Your task to perform on an android device: Search for "panasonic triple a" on target, select the first entry, and add it to the cart. Image 0: 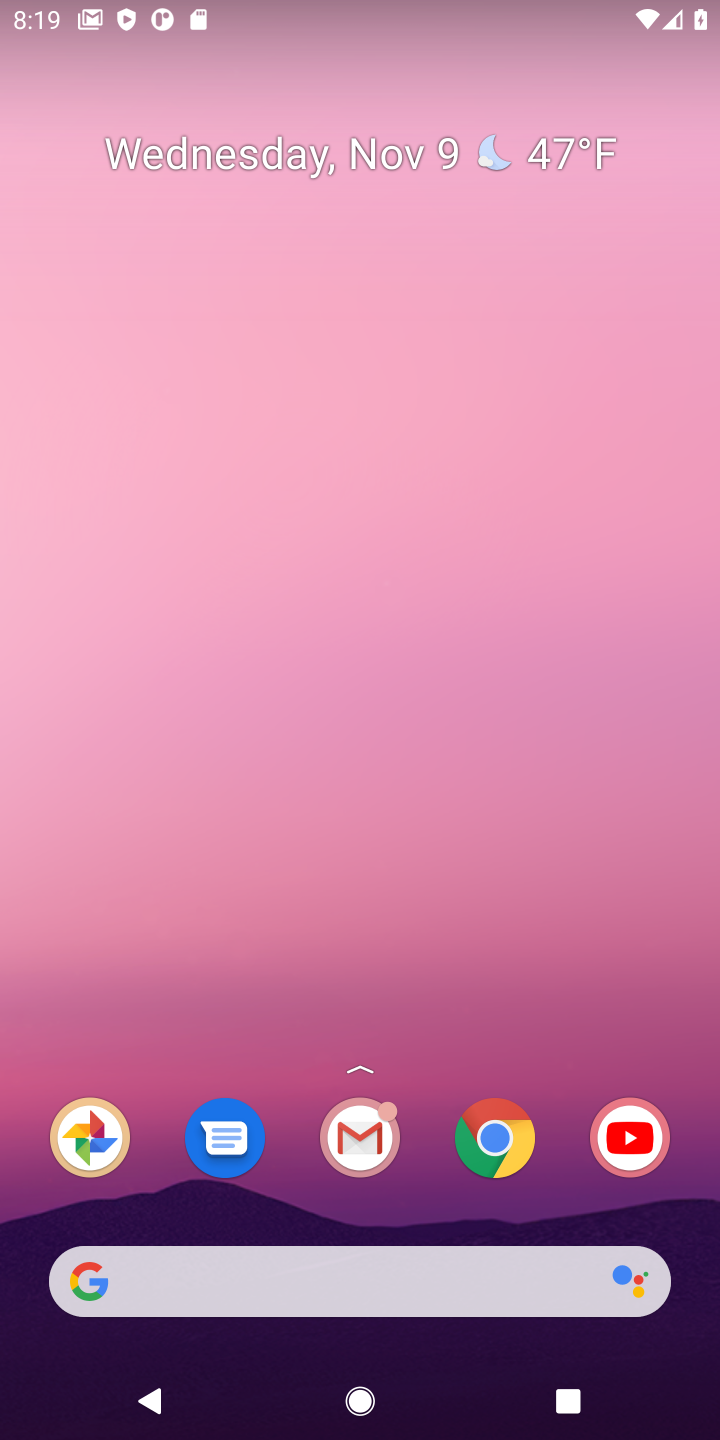
Step 0: drag from (443, 1208) to (362, 48)
Your task to perform on an android device: Search for "panasonic triple a" on target, select the first entry, and add it to the cart. Image 1: 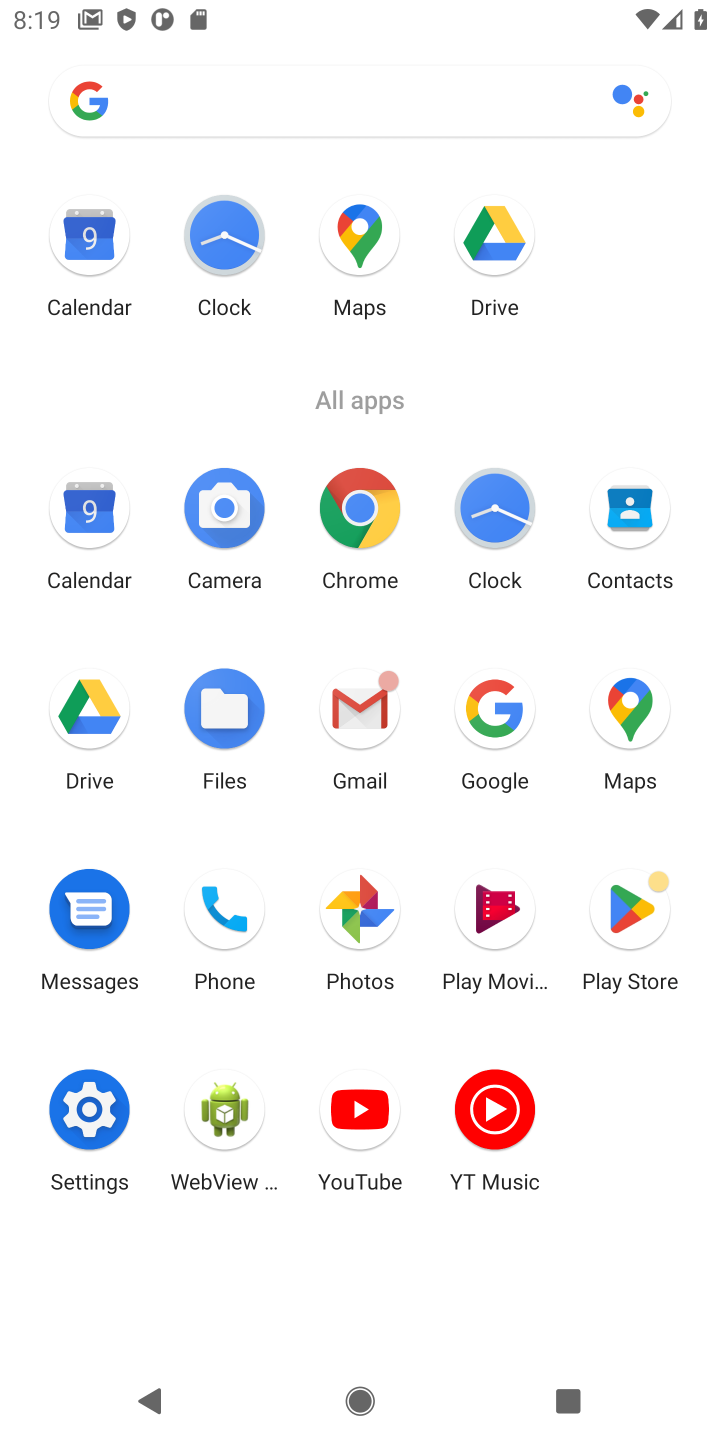
Step 1: click (362, 502)
Your task to perform on an android device: Search for "panasonic triple a" on target, select the first entry, and add it to the cart. Image 2: 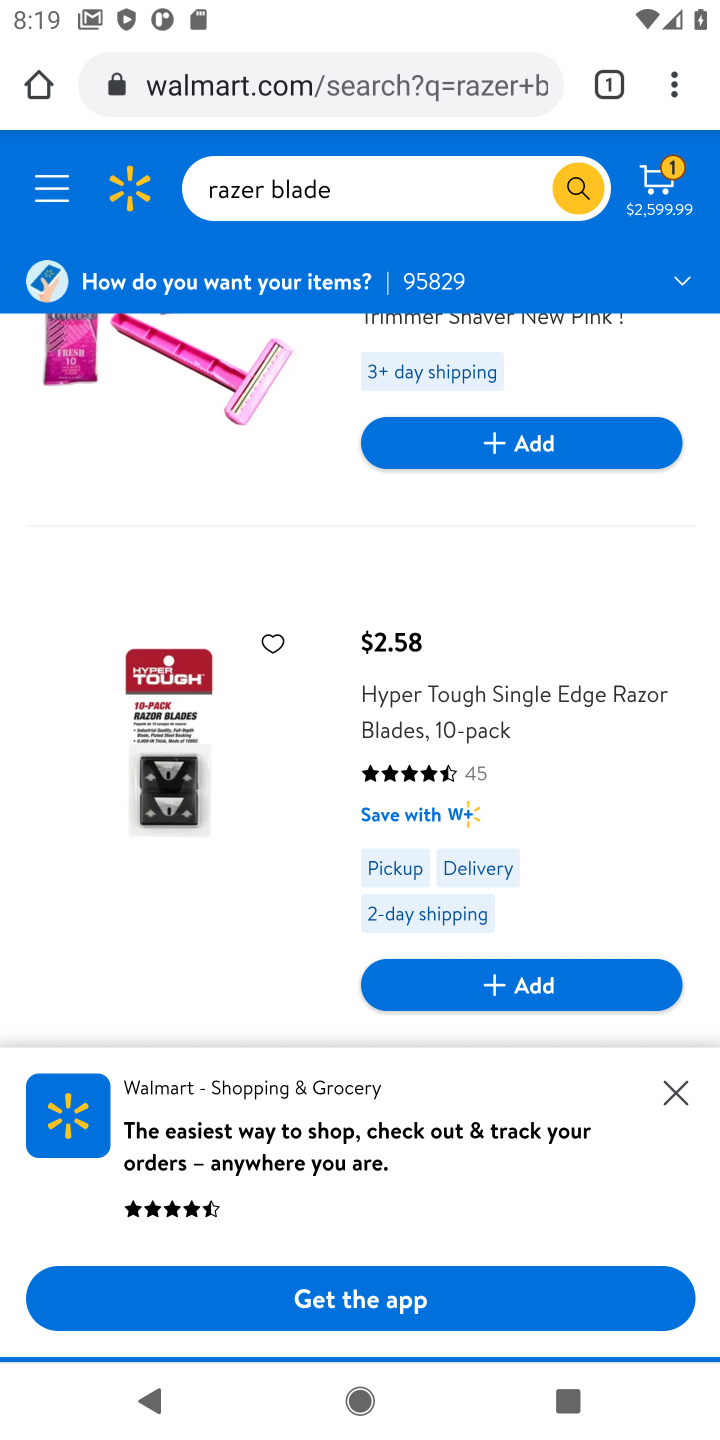
Step 2: click (399, 80)
Your task to perform on an android device: Search for "panasonic triple a" on target, select the first entry, and add it to the cart. Image 3: 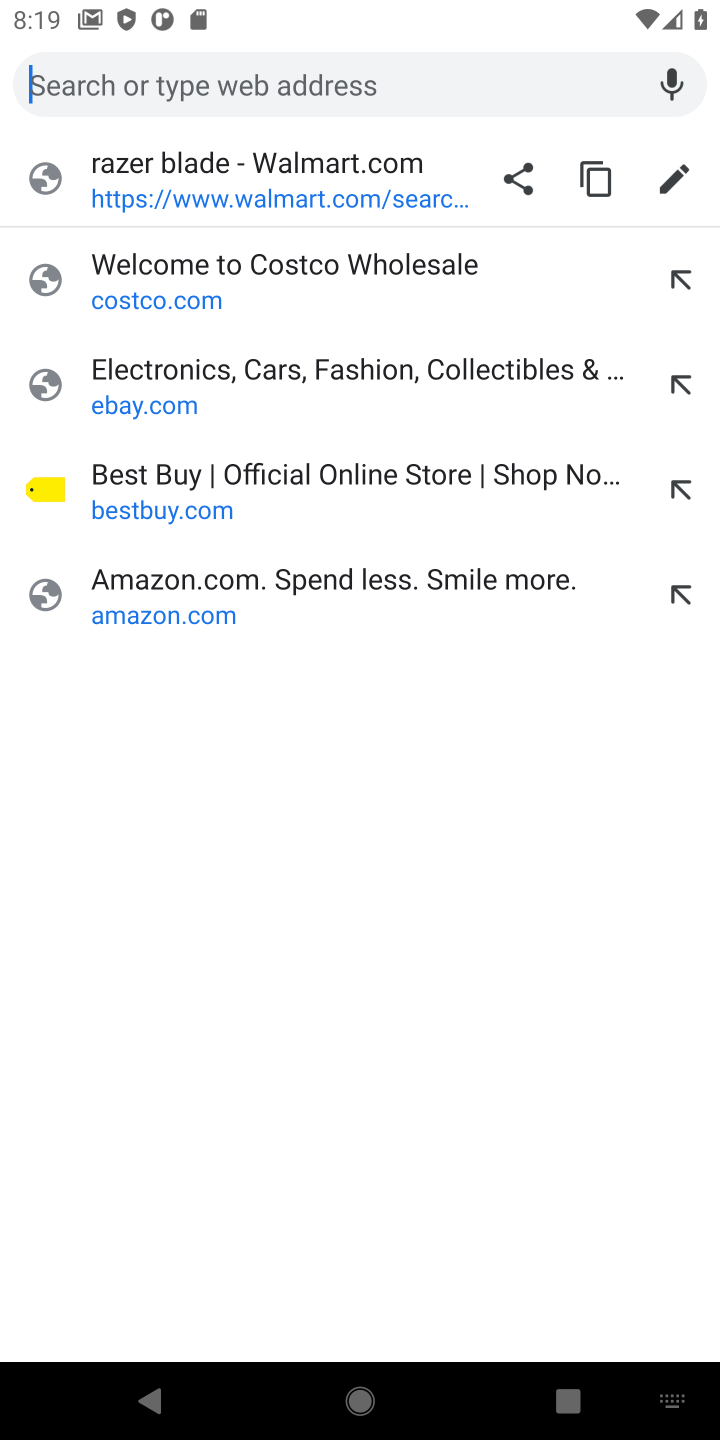
Step 3: type "target.com"
Your task to perform on an android device: Search for "panasonic triple a" on target, select the first entry, and add it to the cart. Image 4: 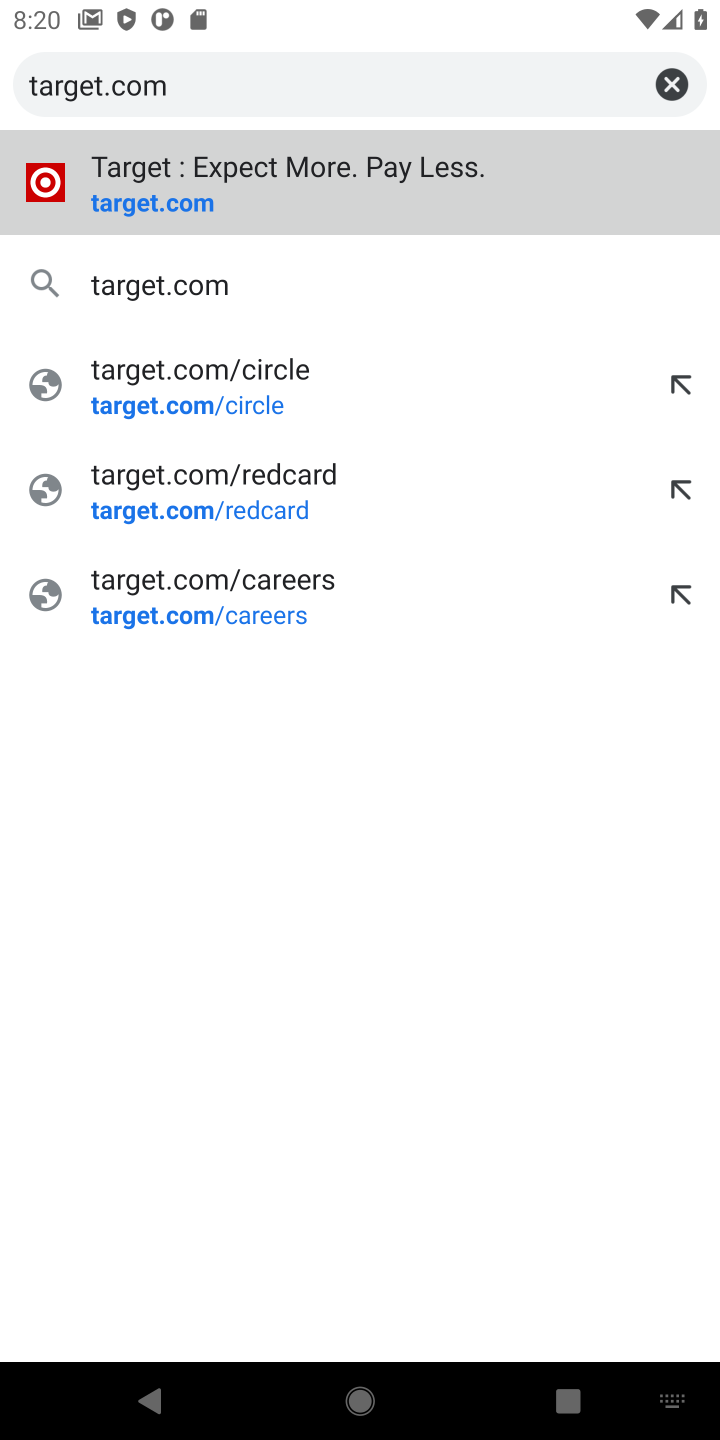
Step 4: press enter
Your task to perform on an android device: Search for "panasonic triple a" on target, select the first entry, and add it to the cart. Image 5: 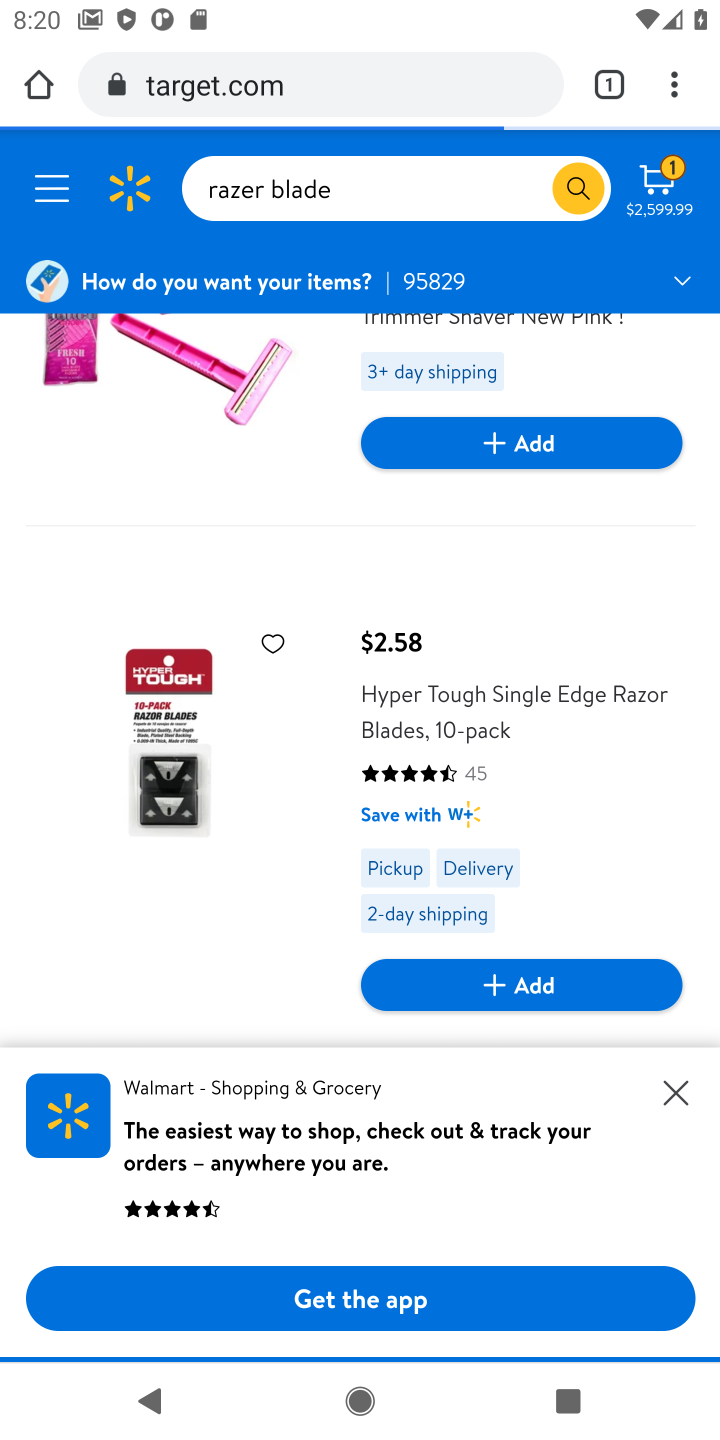
Step 5: press enter
Your task to perform on an android device: Search for "panasonic triple a" on target, select the first entry, and add it to the cart. Image 6: 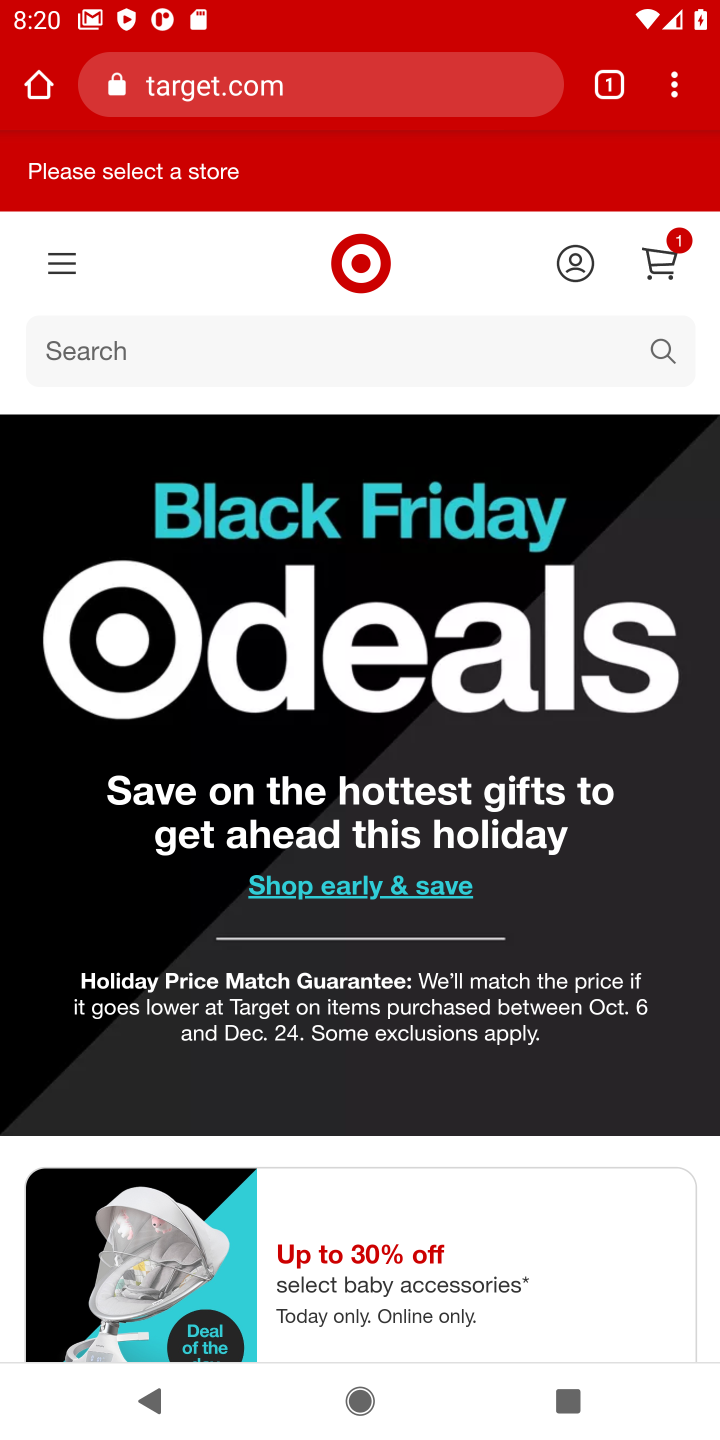
Step 6: click (338, 351)
Your task to perform on an android device: Search for "panasonic triple a" on target, select the first entry, and add it to the cart. Image 7: 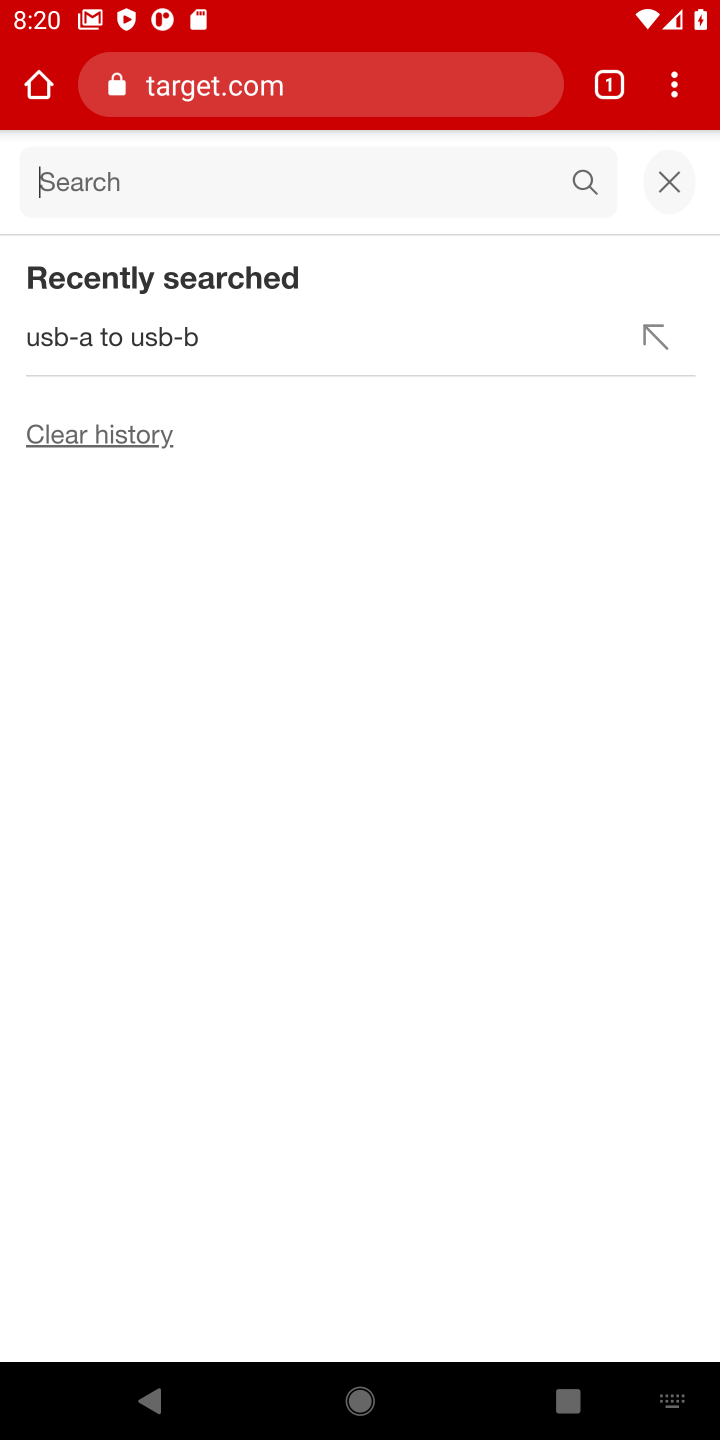
Step 7: type "panasonic triple a"
Your task to perform on an android device: Search for "panasonic triple a" on target, select the first entry, and add it to the cart. Image 8: 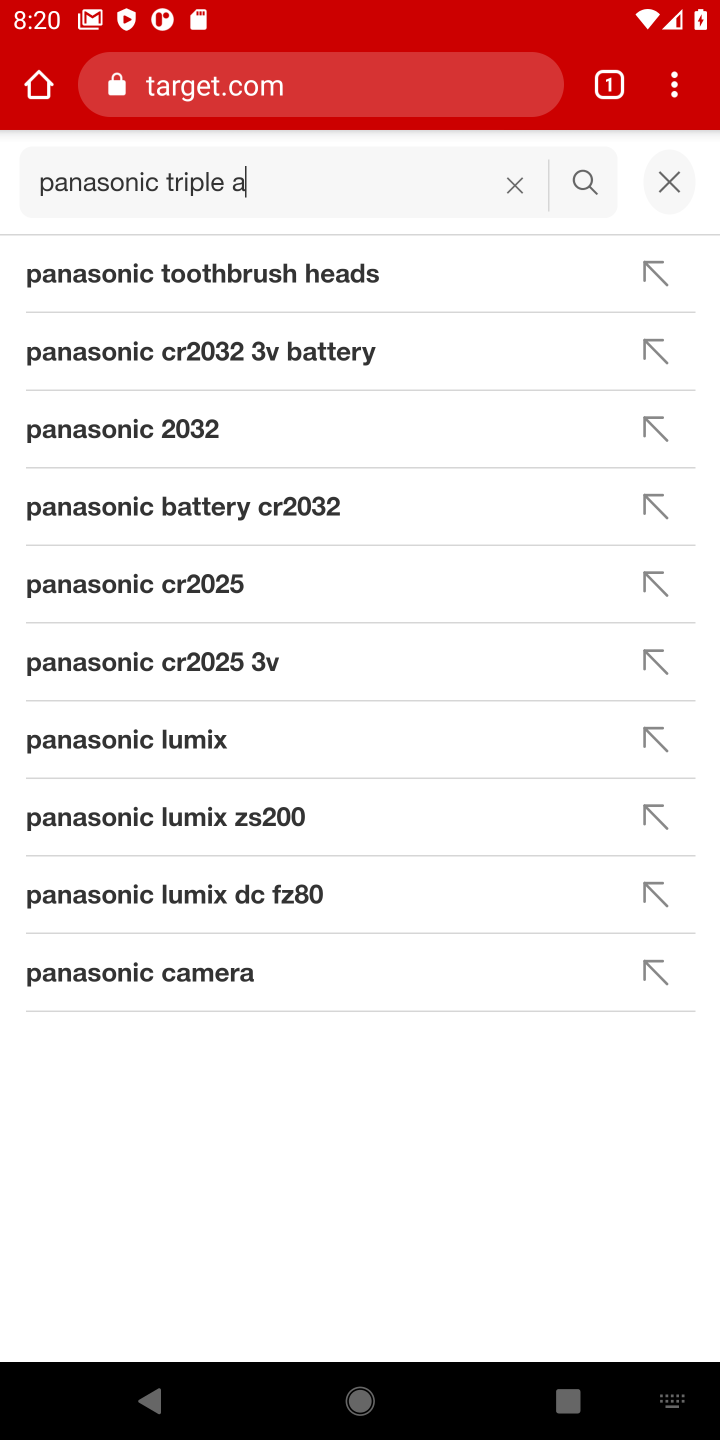
Step 8: press enter
Your task to perform on an android device: Search for "panasonic triple a" on target, select the first entry, and add it to the cart. Image 9: 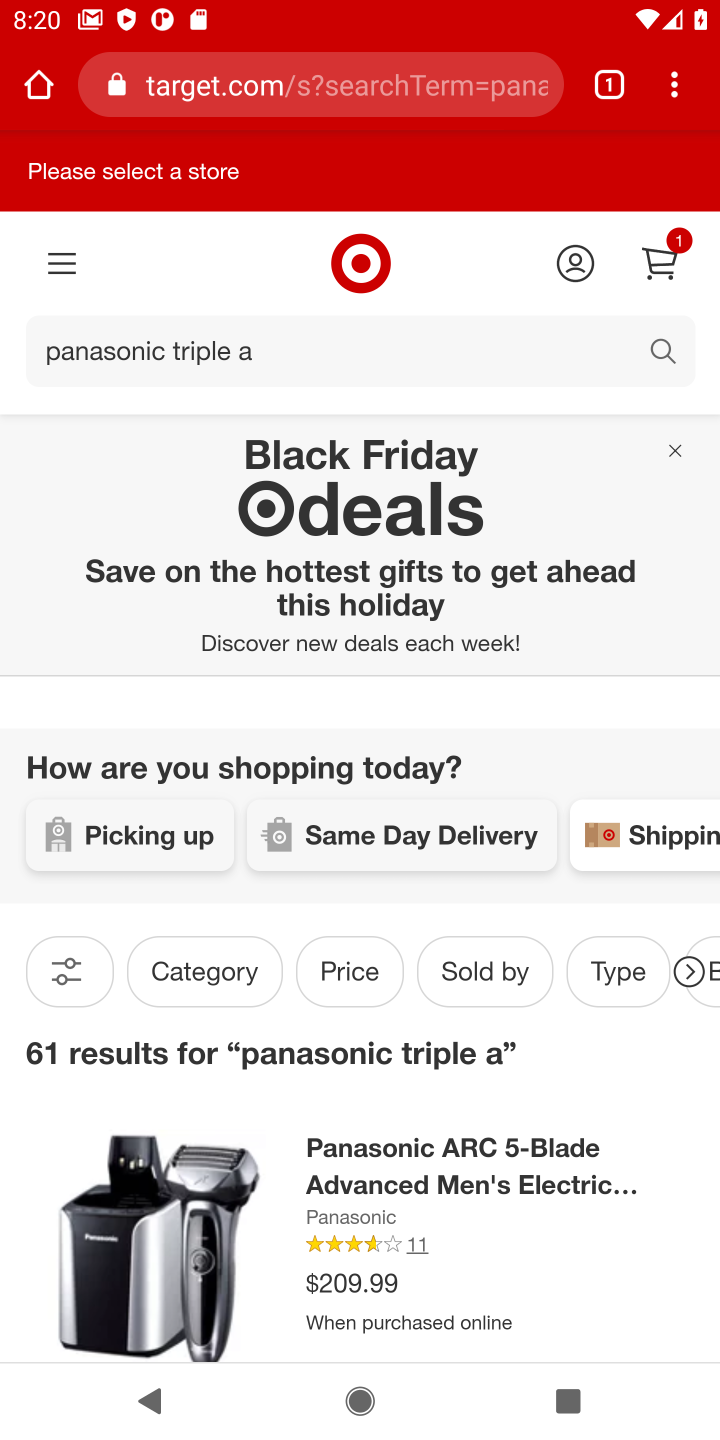
Step 9: task complete